Your task to perform on an android device: Open Yahoo.com Image 0: 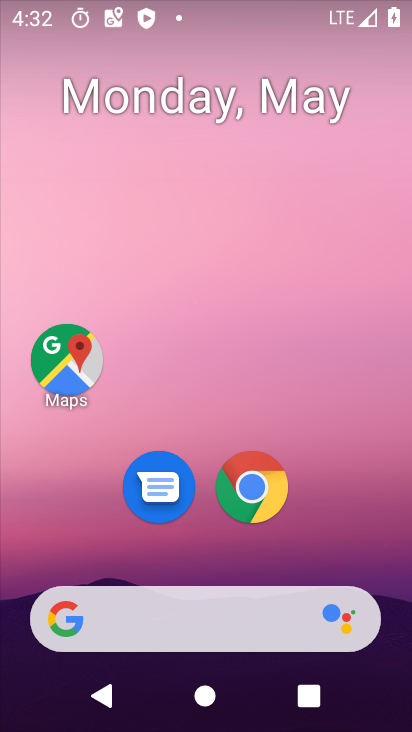
Step 0: click (251, 487)
Your task to perform on an android device: Open Yahoo.com Image 1: 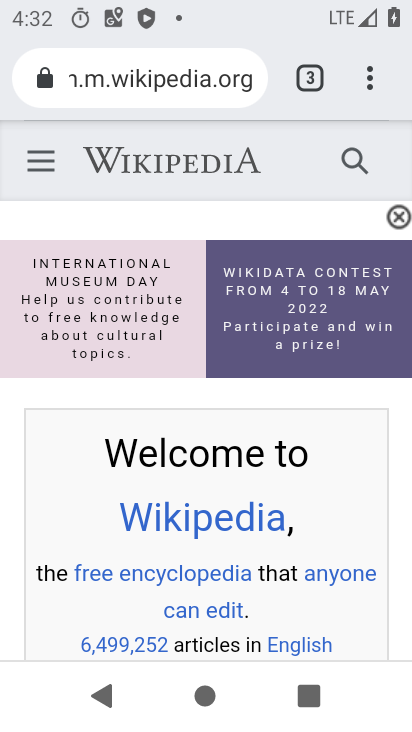
Step 1: click (124, 86)
Your task to perform on an android device: Open Yahoo.com Image 2: 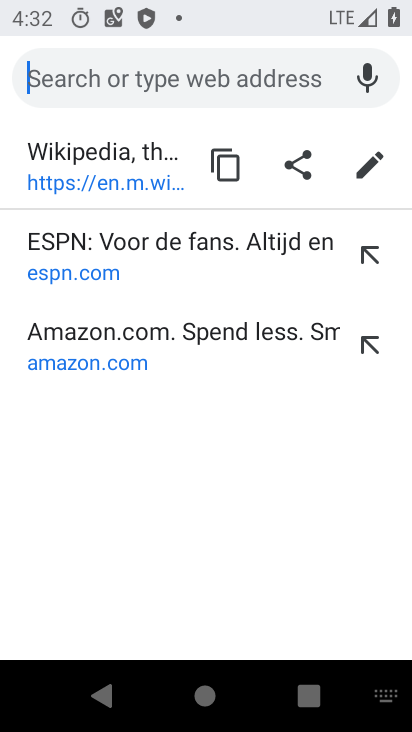
Step 2: type "yahoo.com"
Your task to perform on an android device: Open Yahoo.com Image 3: 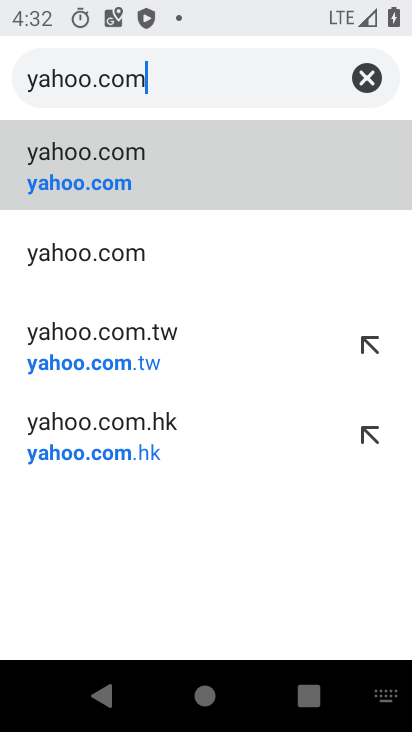
Step 3: click (67, 173)
Your task to perform on an android device: Open Yahoo.com Image 4: 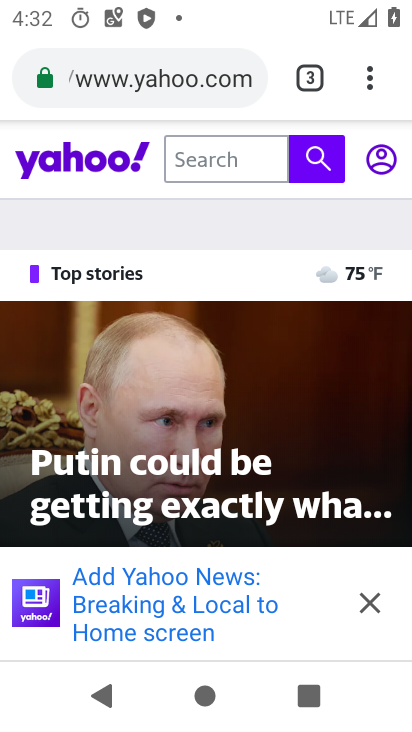
Step 4: task complete